Your task to perform on an android device: turn on showing notifications on the lock screen Image 0: 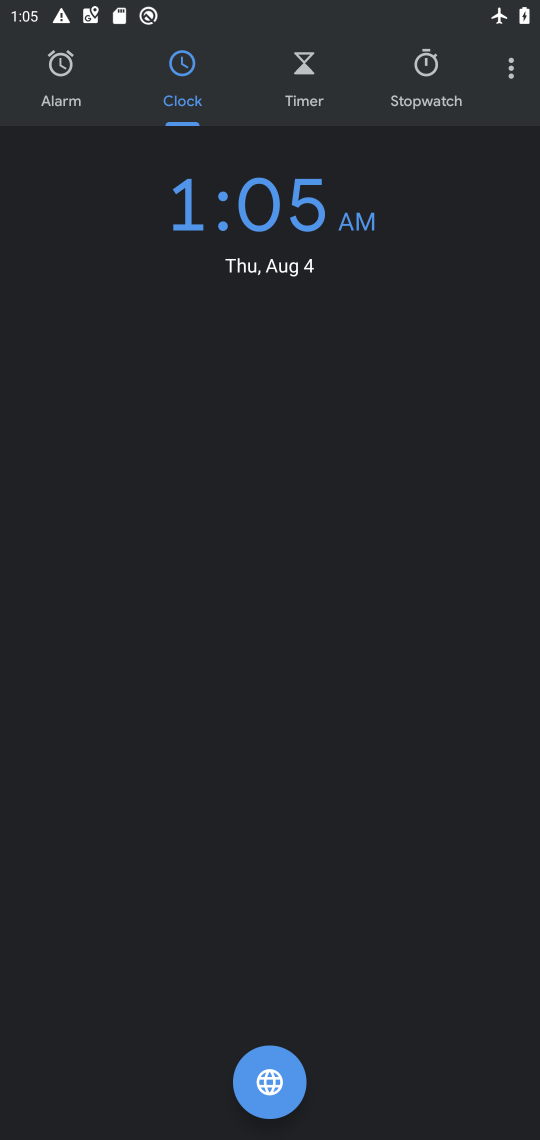
Step 0: press home button
Your task to perform on an android device: turn on showing notifications on the lock screen Image 1: 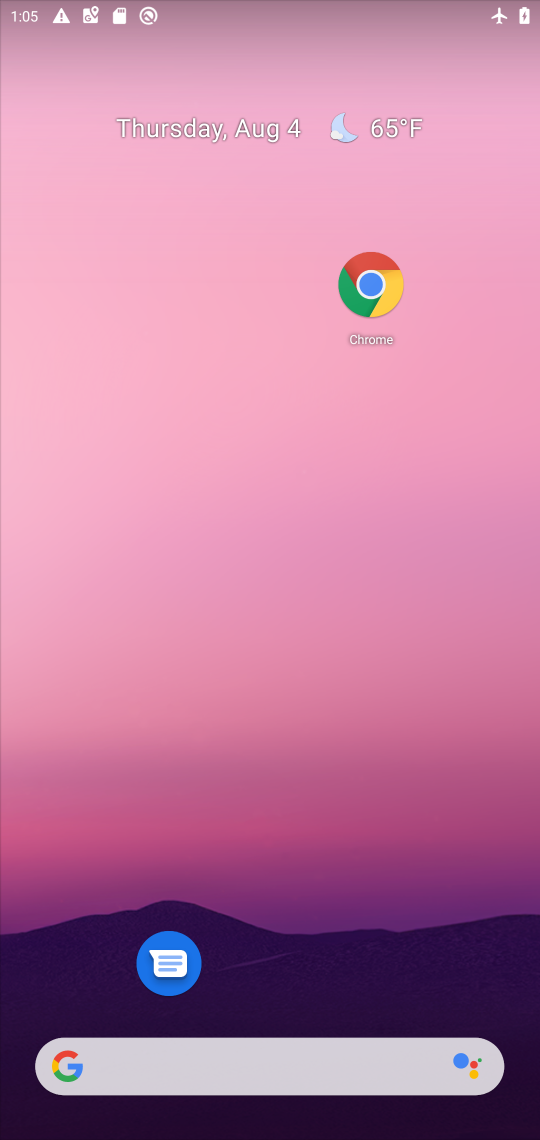
Step 1: drag from (344, 1016) to (336, 289)
Your task to perform on an android device: turn on showing notifications on the lock screen Image 2: 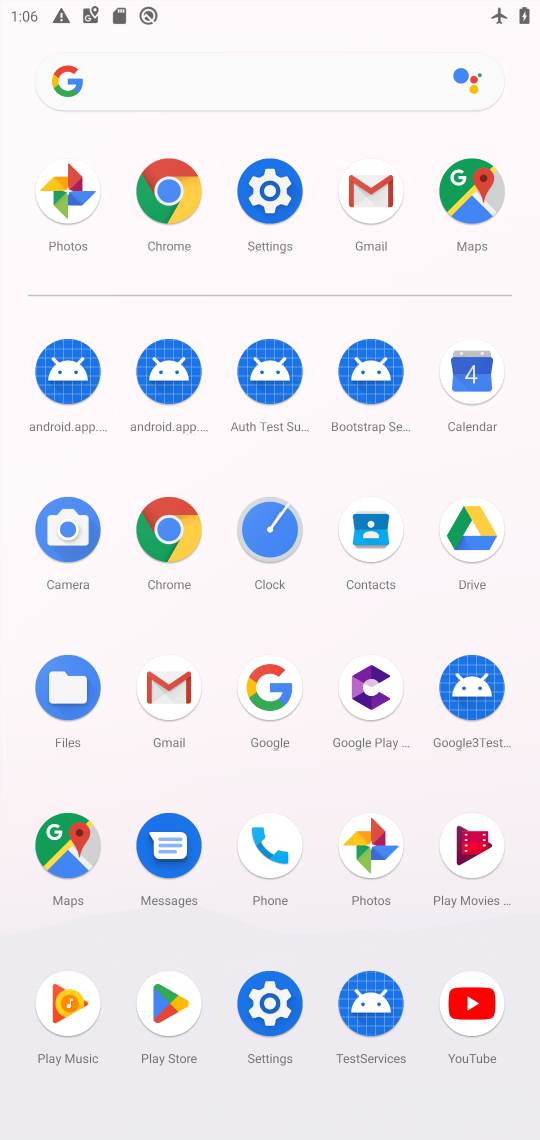
Step 2: click (272, 187)
Your task to perform on an android device: turn on showing notifications on the lock screen Image 3: 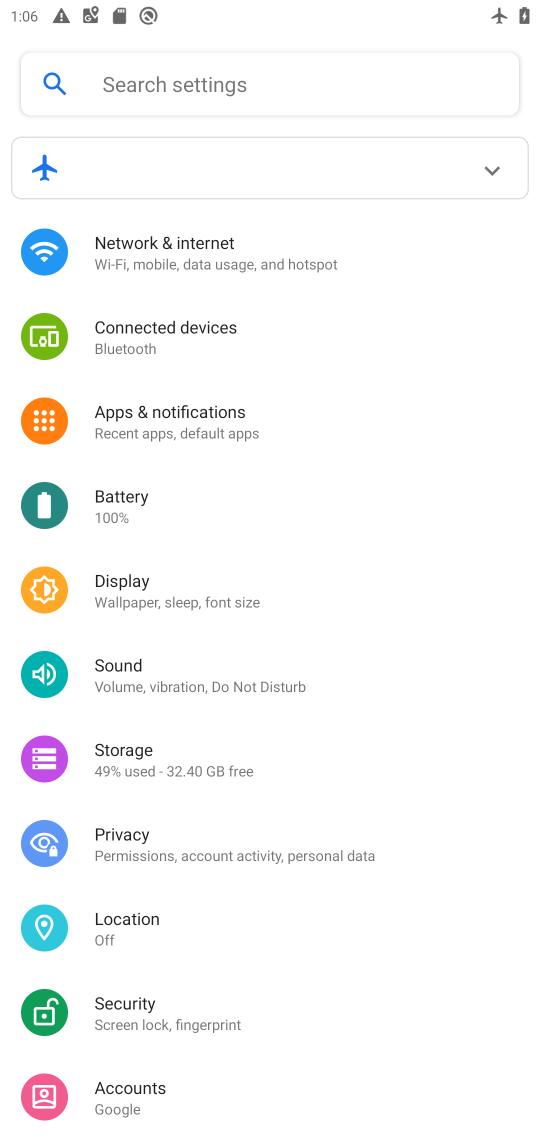
Step 3: click (188, 413)
Your task to perform on an android device: turn on showing notifications on the lock screen Image 4: 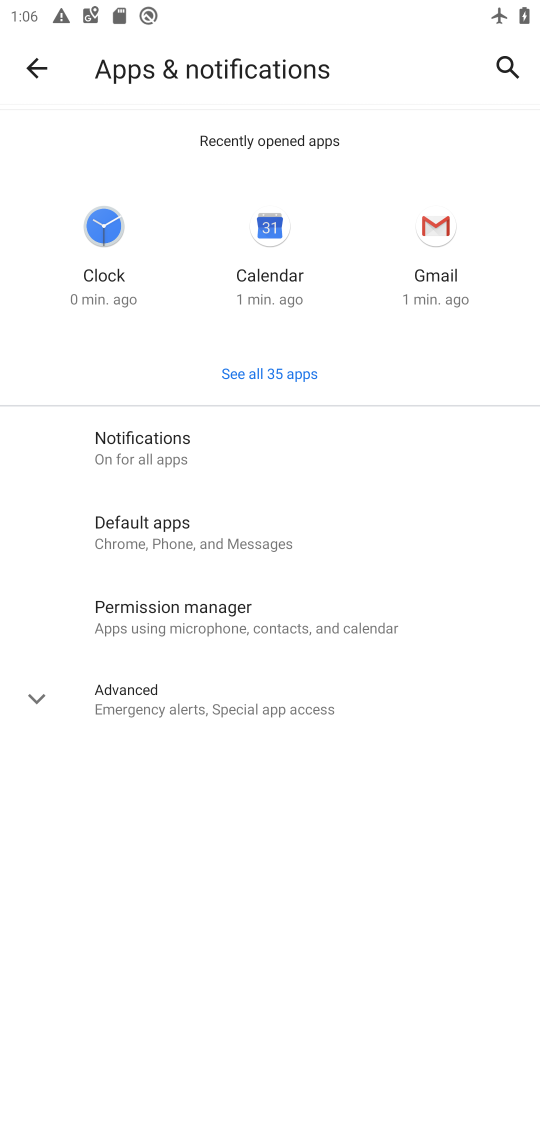
Step 4: click (207, 456)
Your task to perform on an android device: turn on showing notifications on the lock screen Image 5: 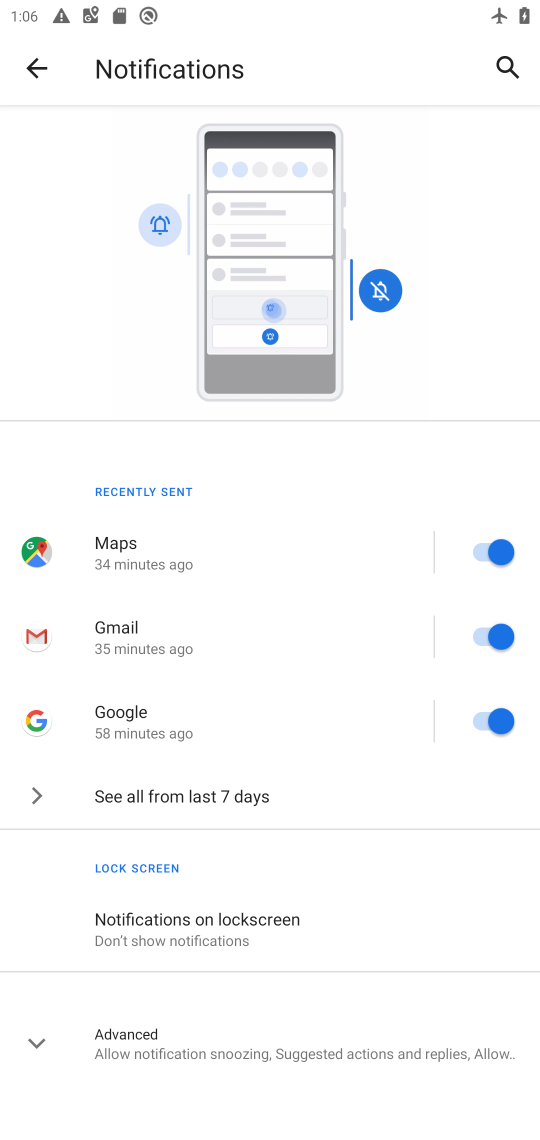
Step 5: click (266, 936)
Your task to perform on an android device: turn on showing notifications on the lock screen Image 6: 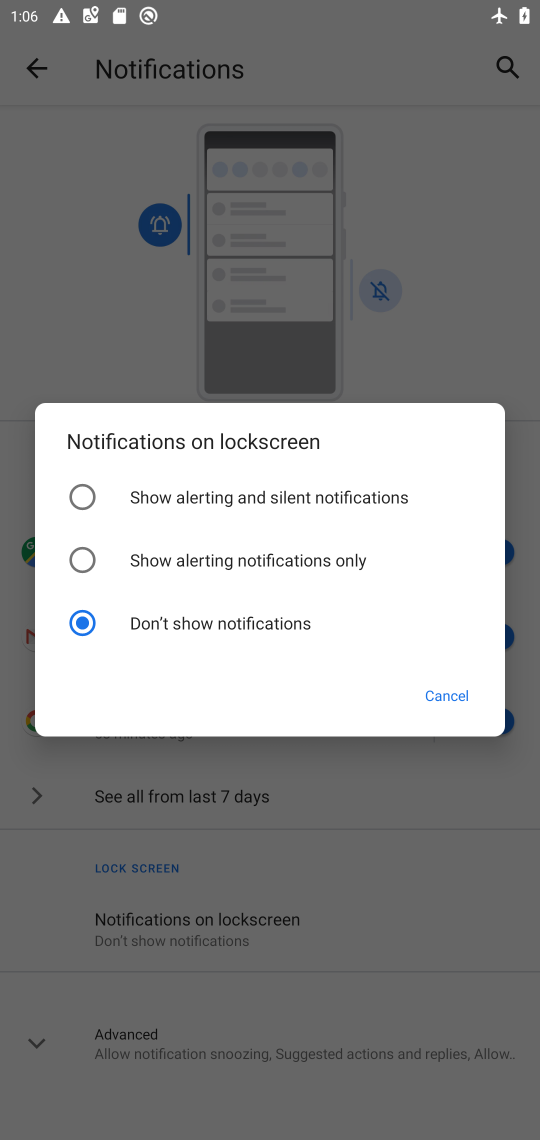
Step 6: click (144, 488)
Your task to perform on an android device: turn on showing notifications on the lock screen Image 7: 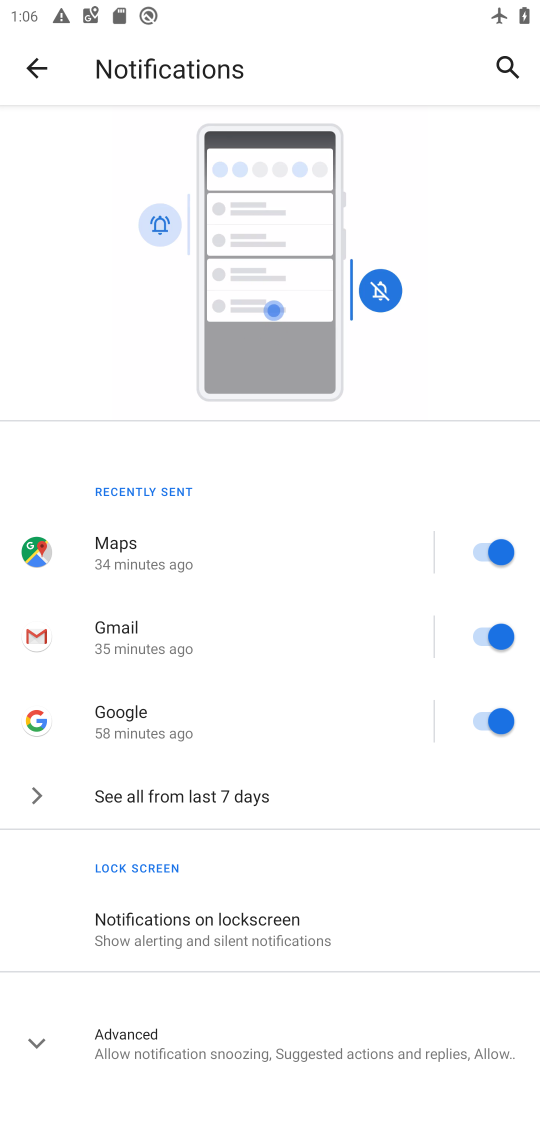
Step 7: task complete